Your task to perform on an android device: add a label to a message in the gmail app Image 0: 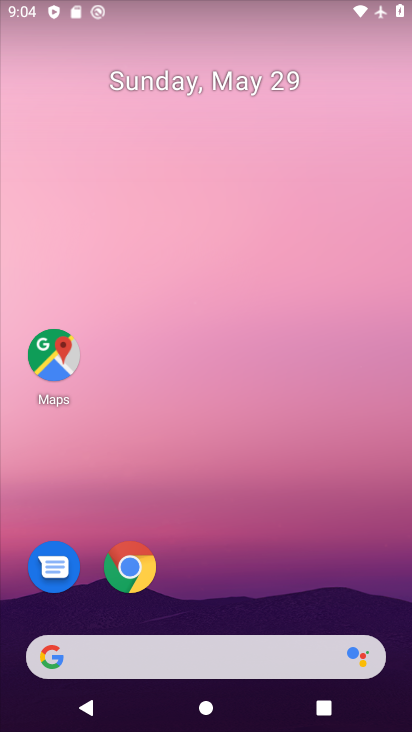
Step 0: drag from (378, 626) to (267, 15)
Your task to perform on an android device: add a label to a message in the gmail app Image 1: 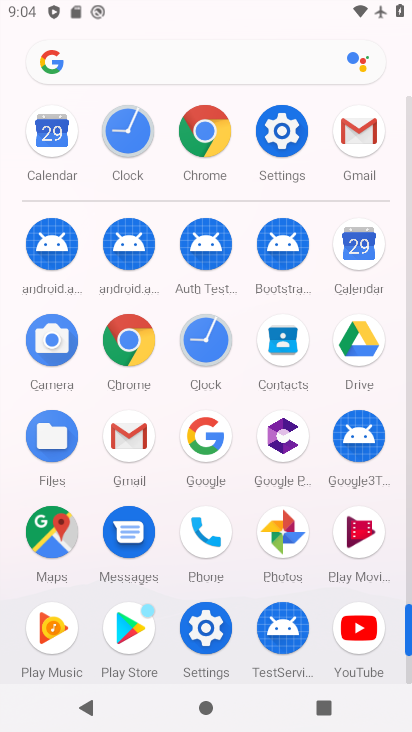
Step 1: click (125, 435)
Your task to perform on an android device: add a label to a message in the gmail app Image 2: 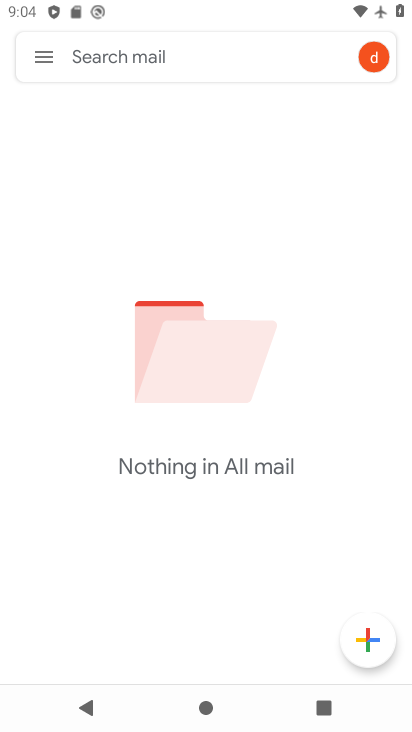
Step 2: click (41, 62)
Your task to perform on an android device: add a label to a message in the gmail app Image 3: 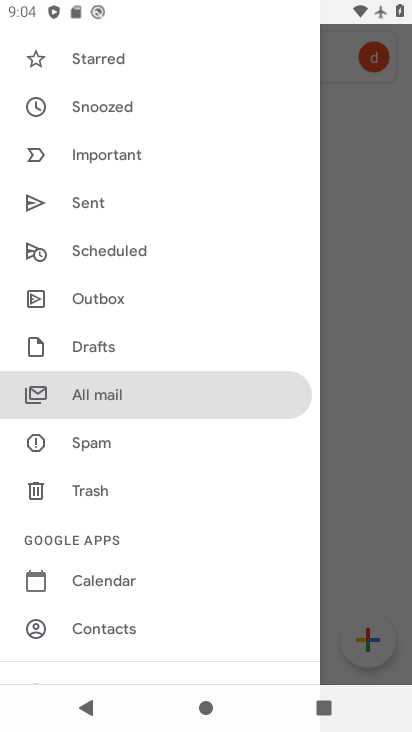
Step 3: click (102, 394)
Your task to perform on an android device: add a label to a message in the gmail app Image 4: 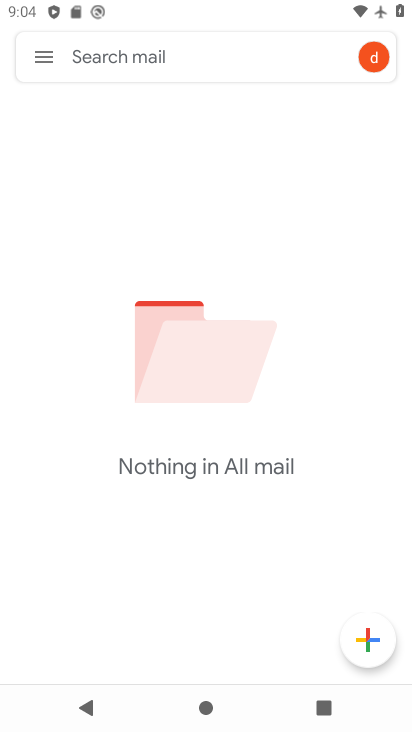
Step 4: task complete